Your task to perform on an android device: turn pop-ups off in chrome Image 0: 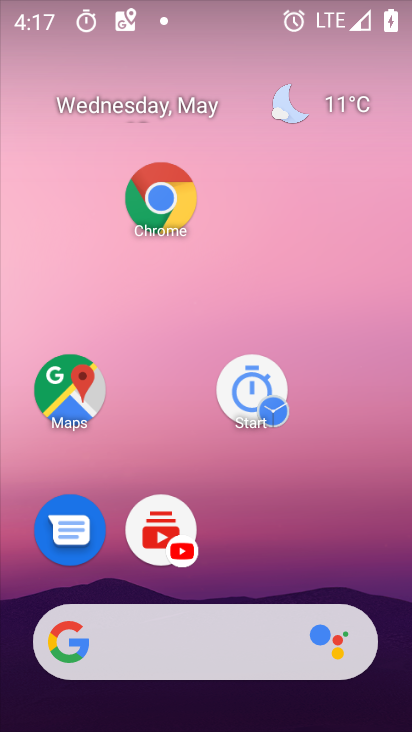
Step 0: drag from (339, 702) to (211, 176)
Your task to perform on an android device: turn pop-ups off in chrome Image 1: 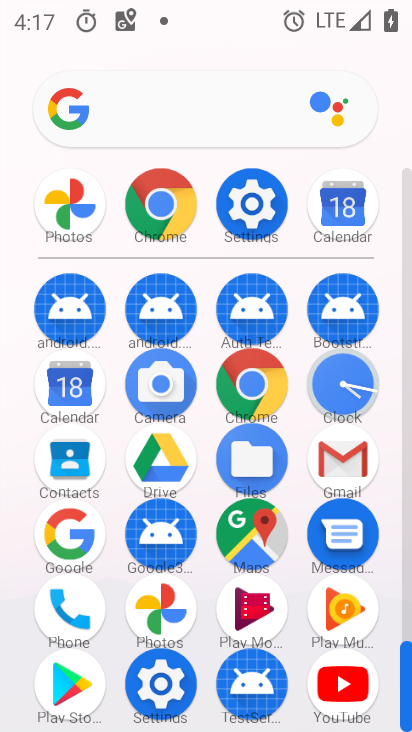
Step 1: click (152, 195)
Your task to perform on an android device: turn pop-ups off in chrome Image 2: 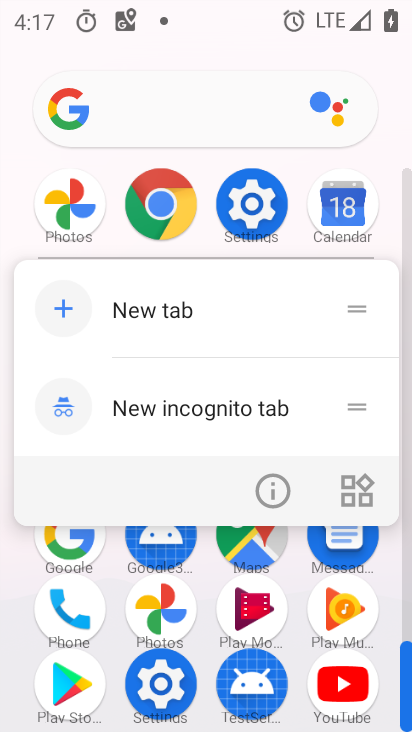
Step 2: click (202, 221)
Your task to perform on an android device: turn pop-ups off in chrome Image 3: 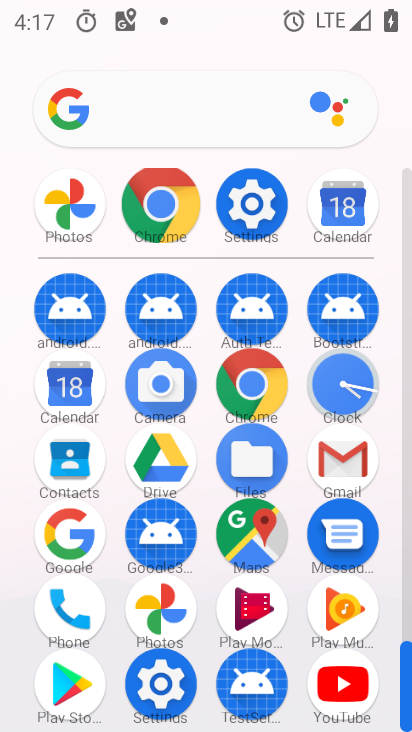
Step 3: click (203, 222)
Your task to perform on an android device: turn pop-ups off in chrome Image 4: 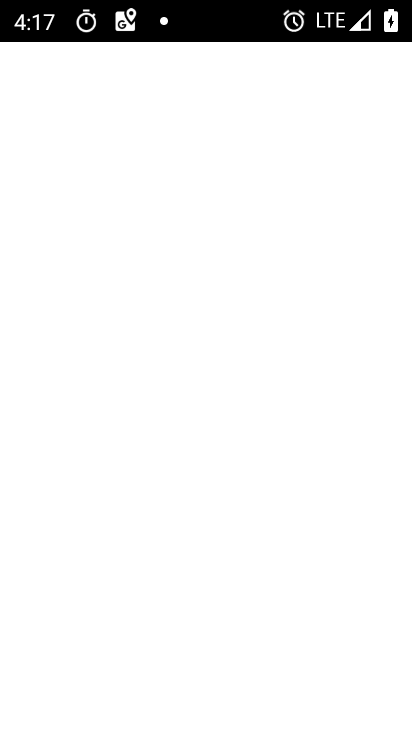
Step 4: click (203, 222)
Your task to perform on an android device: turn pop-ups off in chrome Image 5: 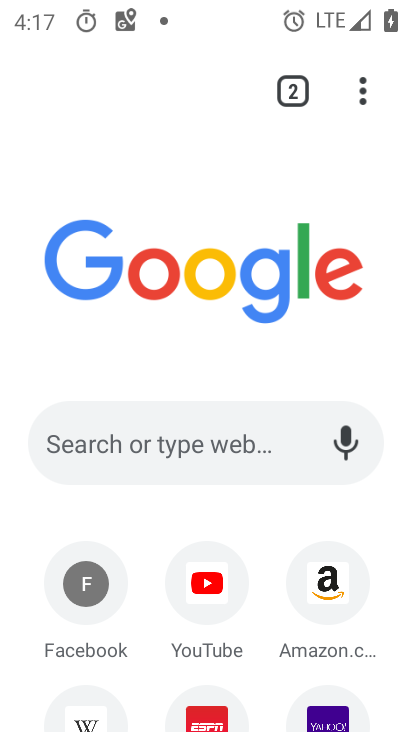
Step 5: drag from (360, 86) to (89, 582)
Your task to perform on an android device: turn pop-ups off in chrome Image 6: 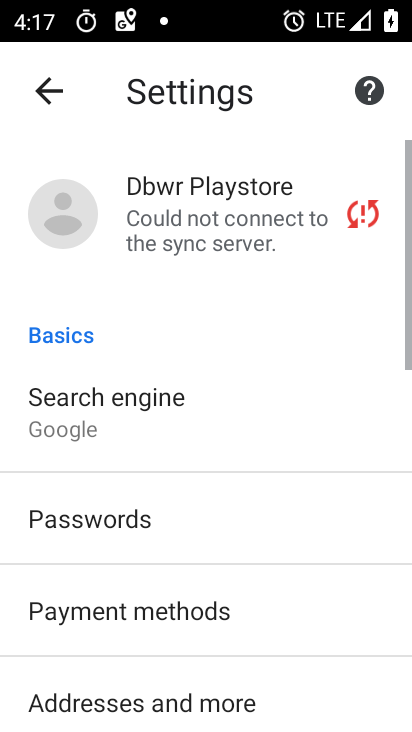
Step 6: click (89, 582)
Your task to perform on an android device: turn pop-ups off in chrome Image 7: 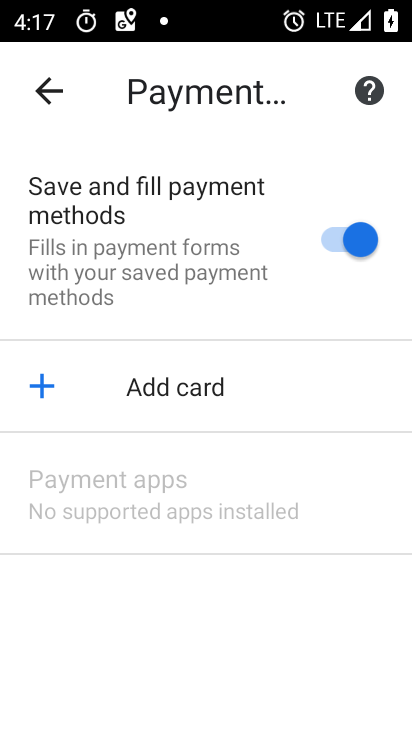
Step 7: click (52, 92)
Your task to perform on an android device: turn pop-ups off in chrome Image 8: 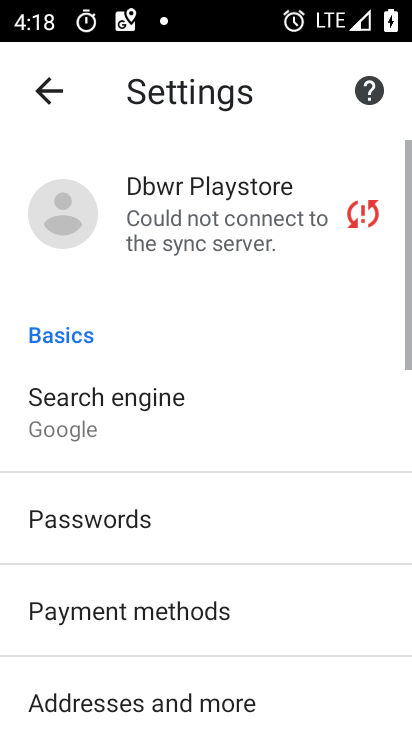
Step 8: drag from (166, 609) to (108, 209)
Your task to perform on an android device: turn pop-ups off in chrome Image 9: 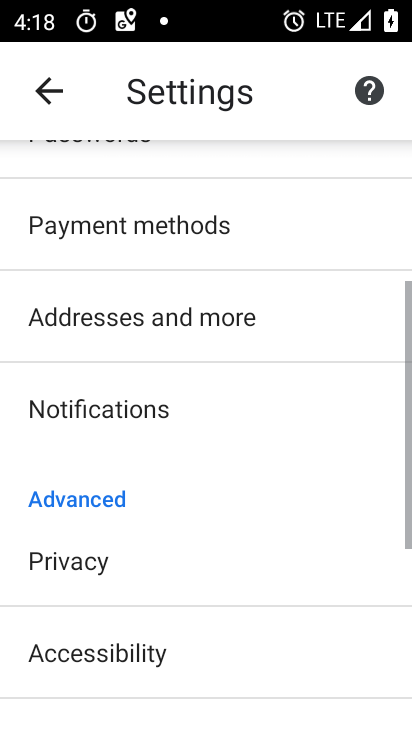
Step 9: drag from (222, 504) to (124, 144)
Your task to perform on an android device: turn pop-ups off in chrome Image 10: 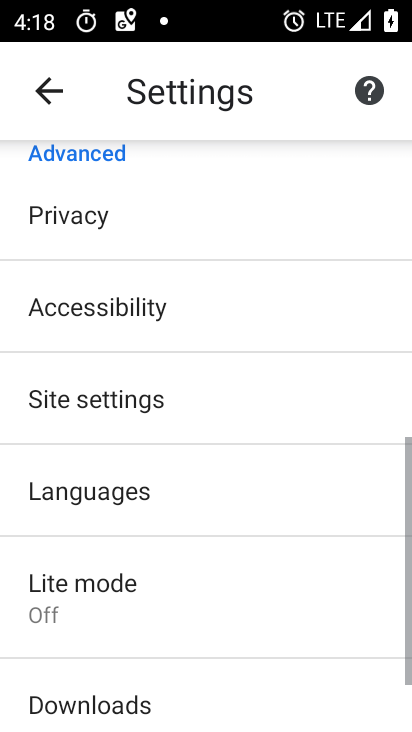
Step 10: drag from (193, 431) to (151, 215)
Your task to perform on an android device: turn pop-ups off in chrome Image 11: 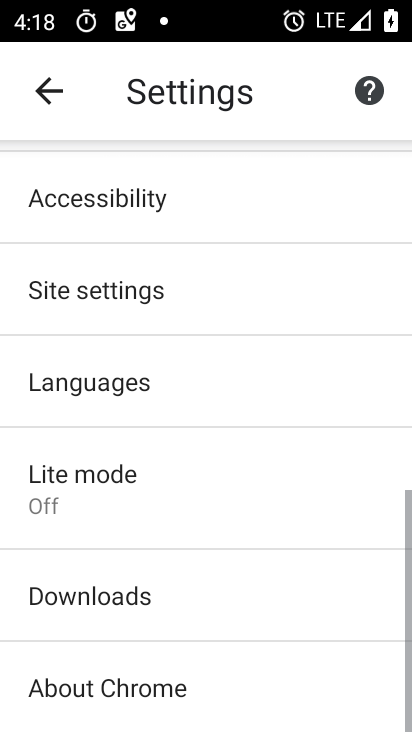
Step 11: drag from (157, 519) to (144, 222)
Your task to perform on an android device: turn pop-ups off in chrome Image 12: 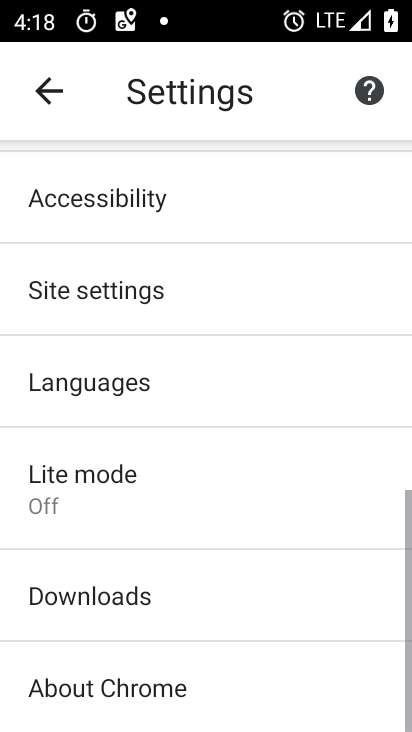
Step 12: drag from (164, 520) to (120, 244)
Your task to perform on an android device: turn pop-ups off in chrome Image 13: 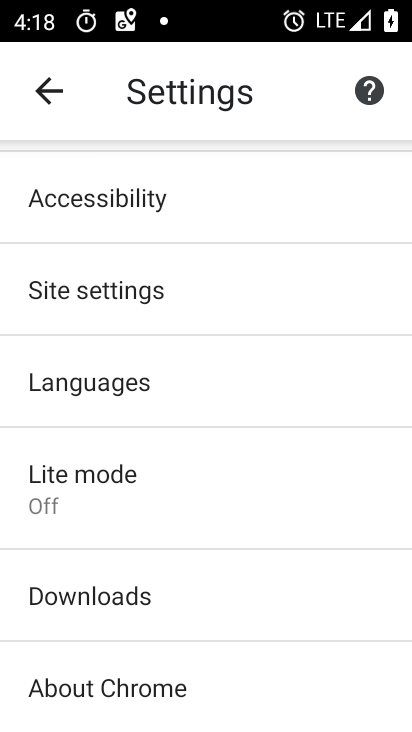
Step 13: drag from (132, 472) to (89, 294)
Your task to perform on an android device: turn pop-ups off in chrome Image 14: 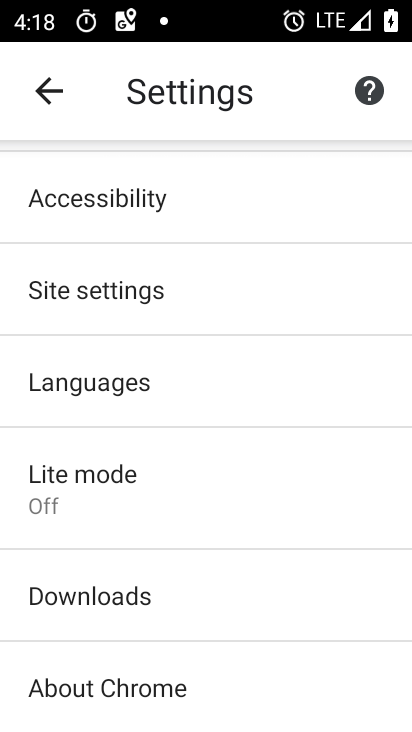
Step 14: drag from (136, 530) to (137, 249)
Your task to perform on an android device: turn pop-ups off in chrome Image 15: 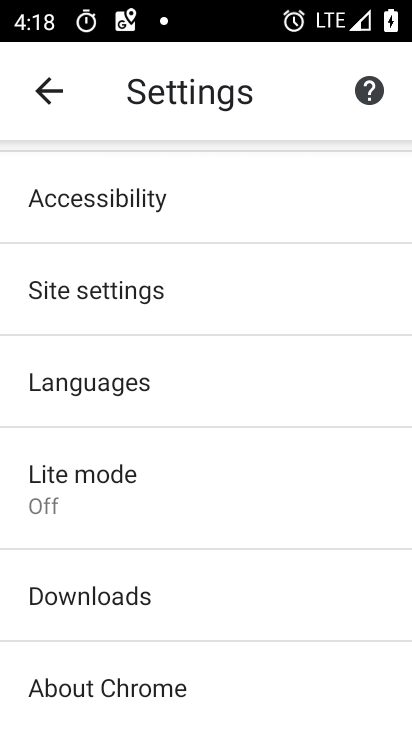
Step 15: click (80, 289)
Your task to perform on an android device: turn pop-ups off in chrome Image 16: 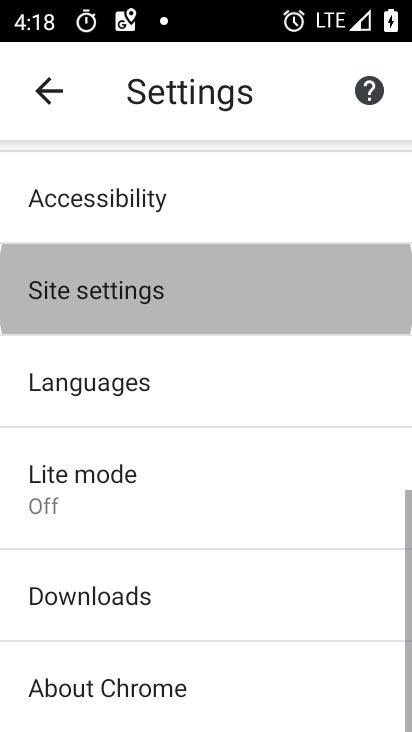
Step 16: click (80, 289)
Your task to perform on an android device: turn pop-ups off in chrome Image 17: 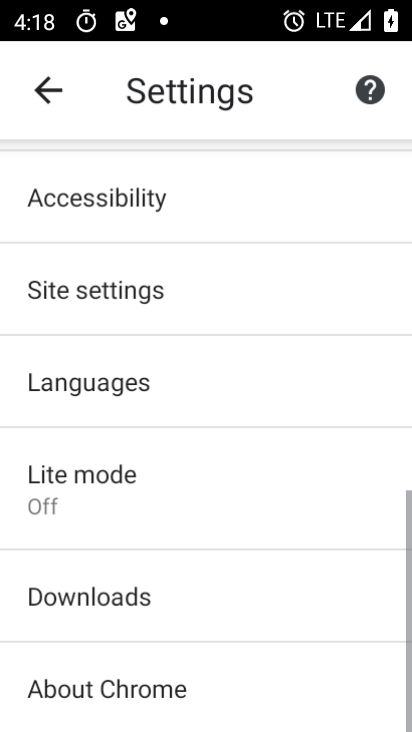
Step 17: click (82, 289)
Your task to perform on an android device: turn pop-ups off in chrome Image 18: 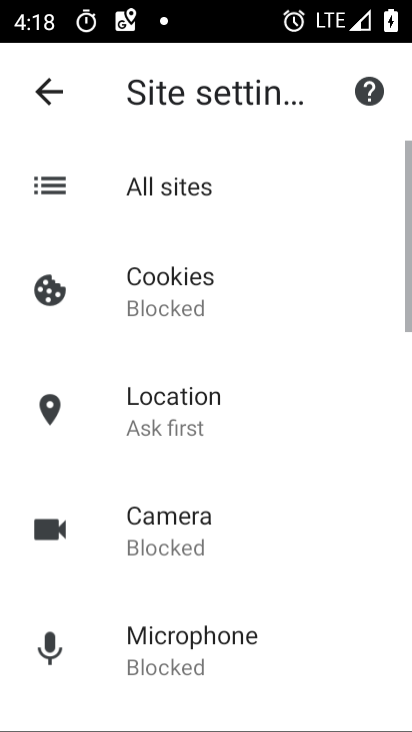
Step 18: click (83, 289)
Your task to perform on an android device: turn pop-ups off in chrome Image 19: 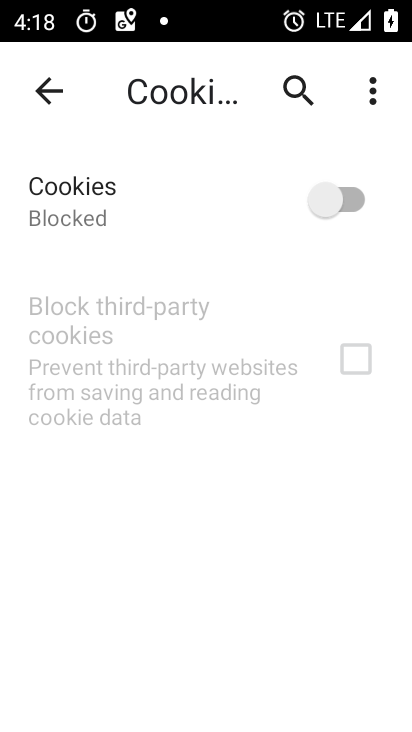
Step 19: click (44, 87)
Your task to perform on an android device: turn pop-ups off in chrome Image 20: 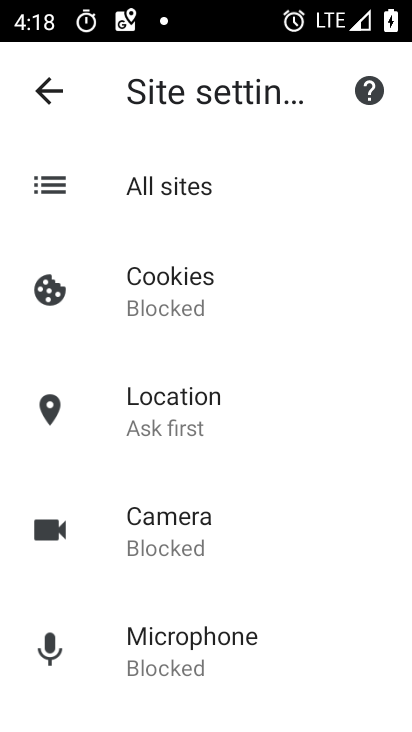
Step 20: drag from (119, 199) to (111, 60)
Your task to perform on an android device: turn pop-ups off in chrome Image 21: 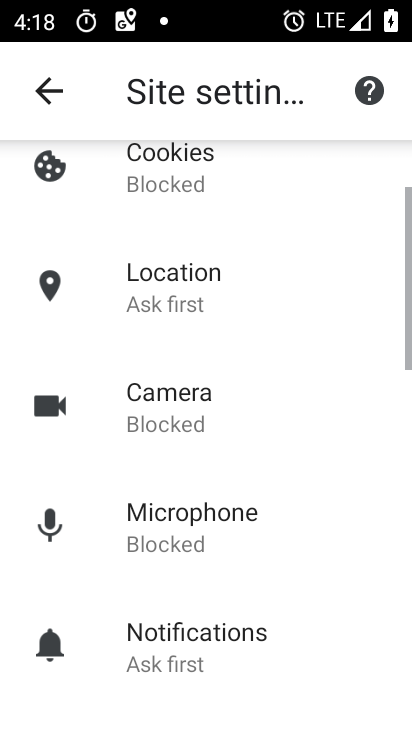
Step 21: click (98, 123)
Your task to perform on an android device: turn pop-ups off in chrome Image 22: 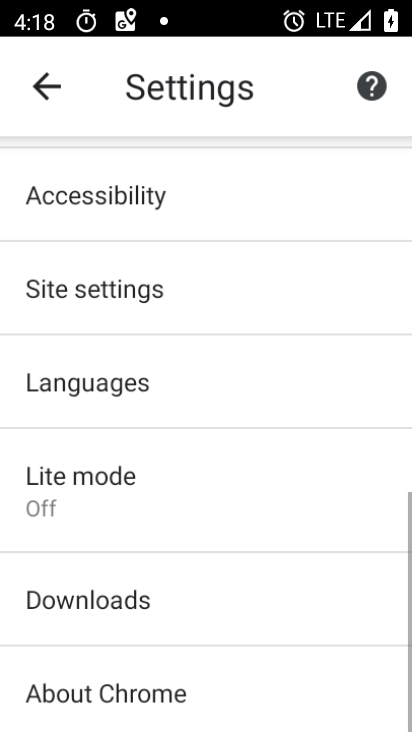
Step 22: drag from (148, 536) to (149, 174)
Your task to perform on an android device: turn pop-ups off in chrome Image 23: 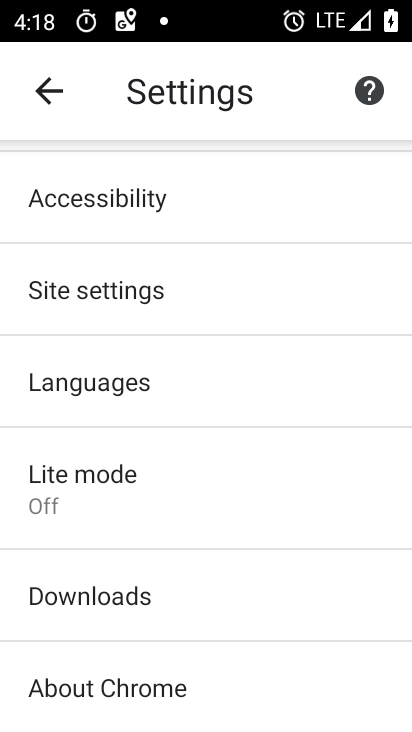
Step 23: click (74, 301)
Your task to perform on an android device: turn pop-ups off in chrome Image 24: 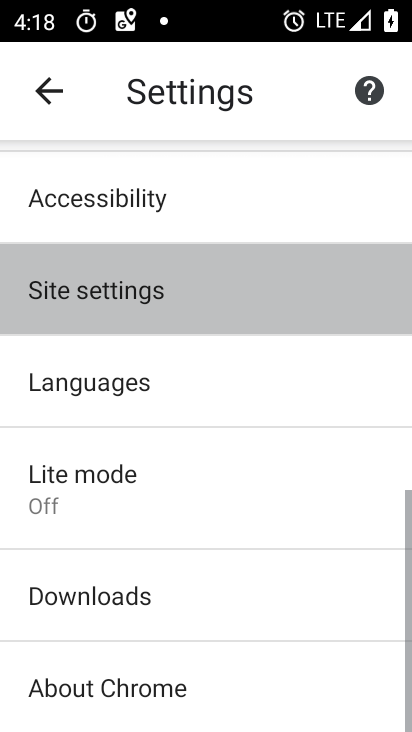
Step 24: click (74, 301)
Your task to perform on an android device: turn pop-ups off in chrome Image 25: 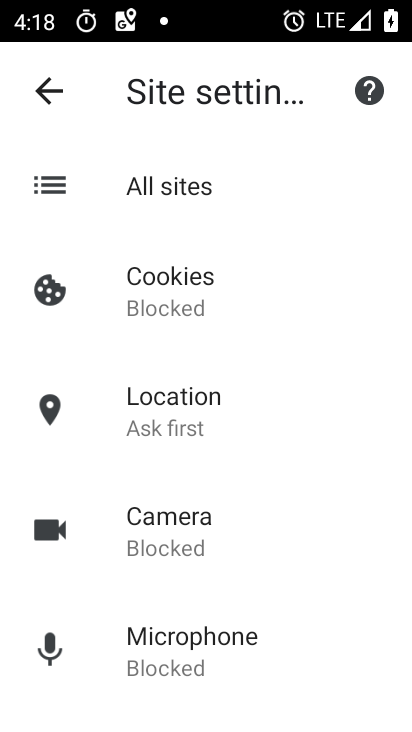
Step 25: drag from (161, 502) to (94, 204)
Your task to perform on an android device: turn pop-ups off in chrome Image 26: 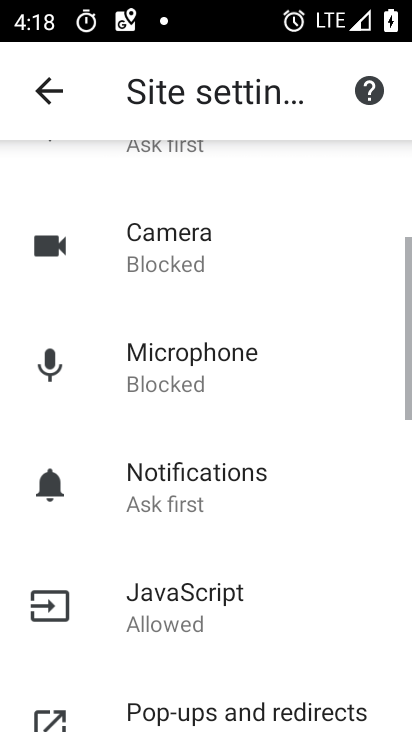
Step 26: drag from (174, 474) to (128, 229)
Your task to perform on an android device: turn pop-ups off in chrome Image 27: 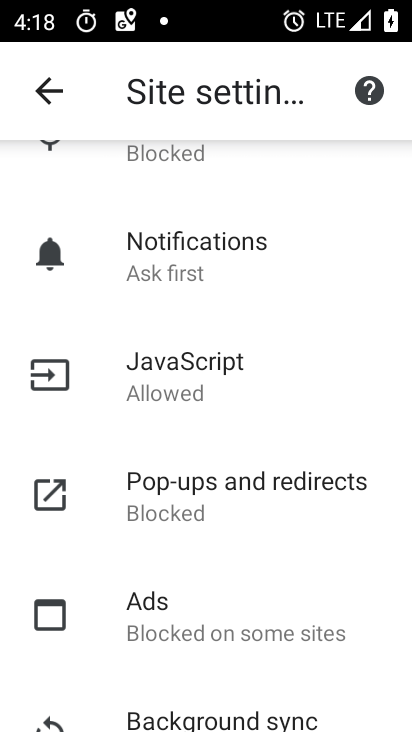
Step 27: click (182, 479)
Your task to perform on an android device: turn pop-ups off in chrome Image 28: 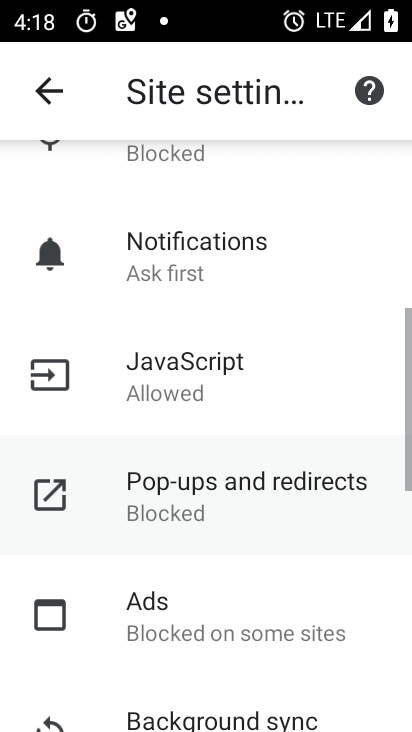
Step 28: click (180, 477)
Your task to perform on an android device: turn pop-ups off in chrome Image 29: 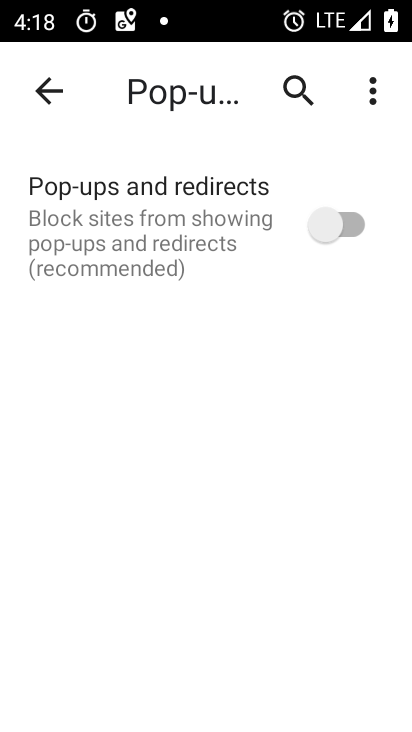
Step 29: task complete